Your task to perform on an android device: Open settings on Google Maps Image 0: 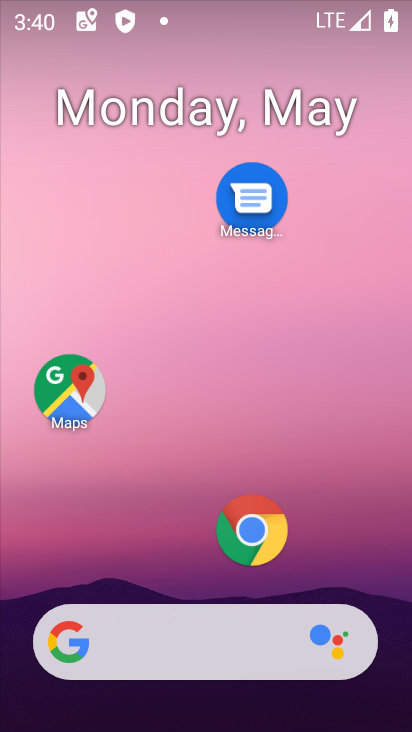
Step 0: click (71, 375)
Your task to perform on an android device: Open settings on Google Maps Image 1: 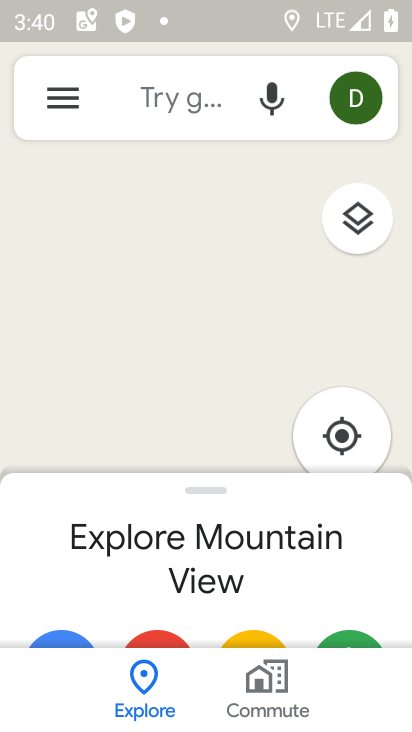
Step 1: click (83, 97)
Your task to perform on an android device: Open settings on Google Maps Image 2: 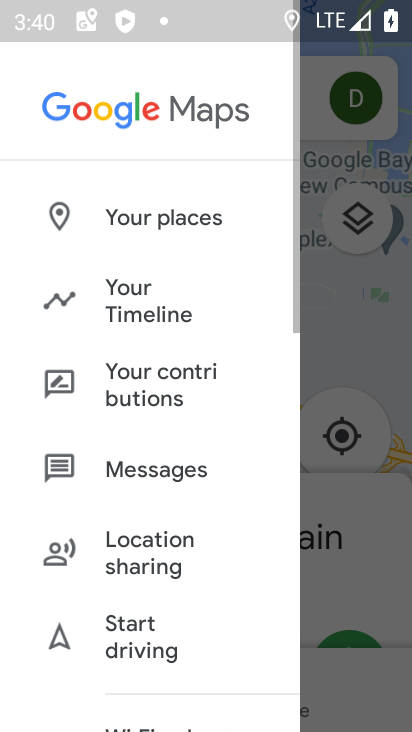
Step 2: drag from (134, 623) to (212, 159)
Your task to perform on an android device: Open settings on Google Maps Image 3: 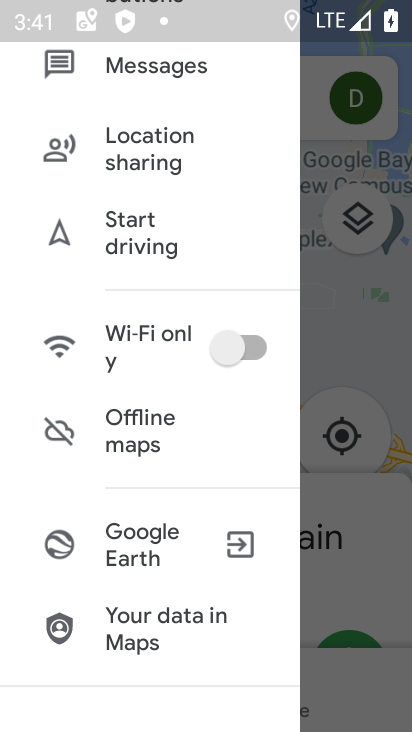
Step 3: drag from (131, 620) to (178, 148)
Your task to perform on an android device: Open settings on Google Maps Image 4: 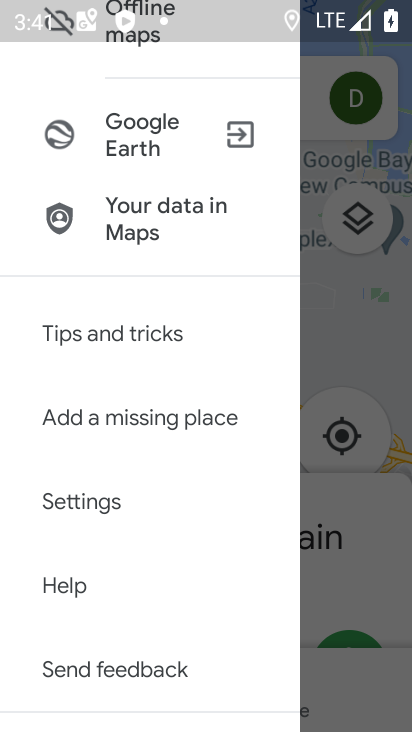
Step 4: click (99, 513)
Your task to perform on an android device: Open settings on Google Maps Image 5: 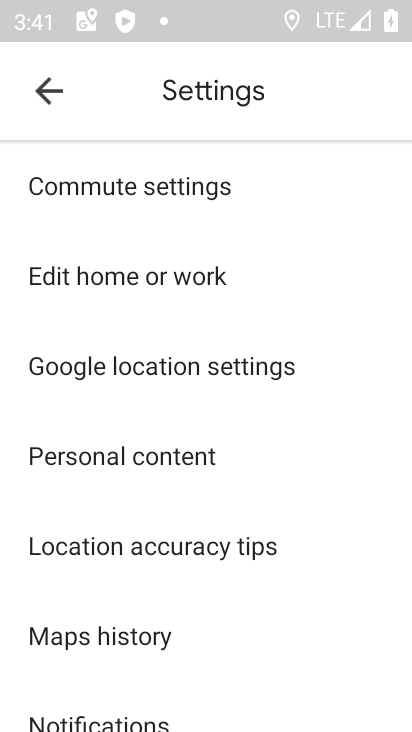
Step 5: task complete